Your task to perform on an android device: turn on priority inbox in the gmail app Image 0: 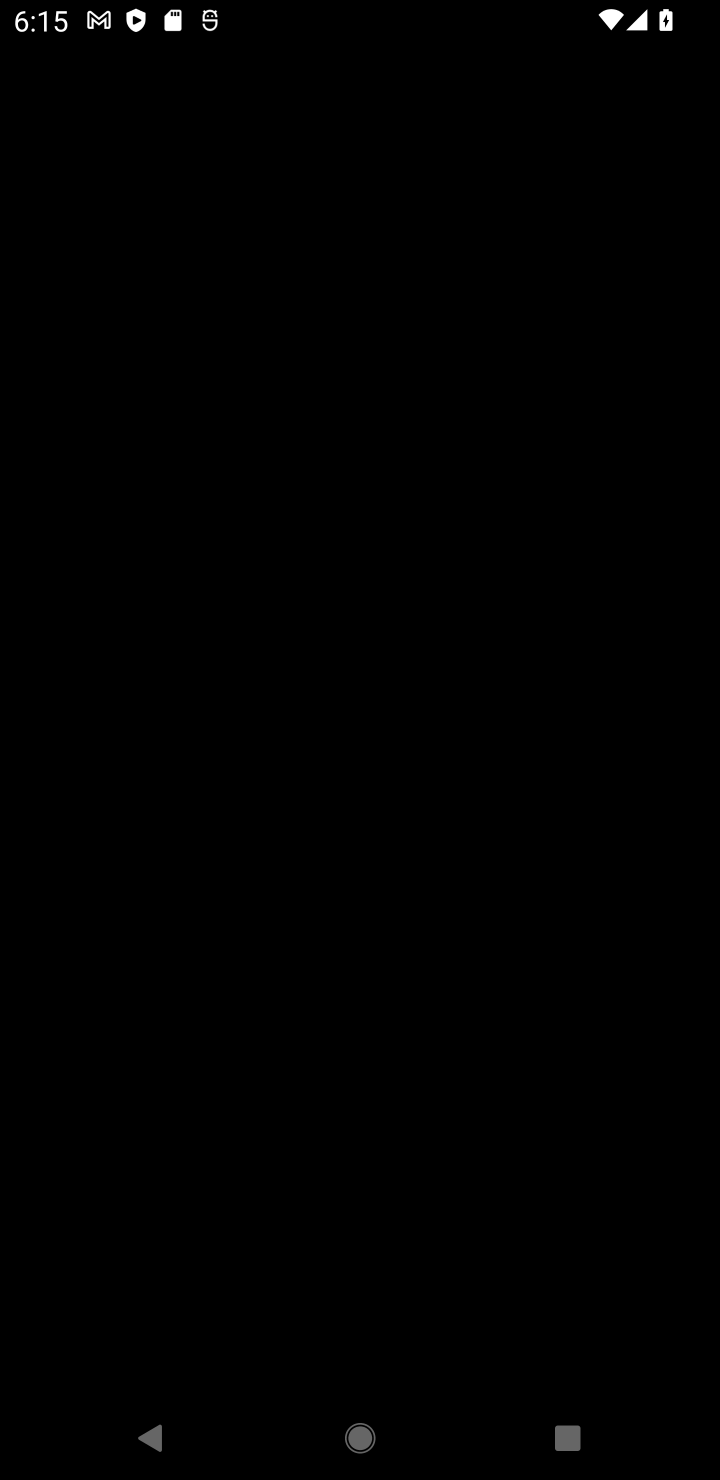
Step 0: press home button
Your task to perform on an android device: turn on priority inbox in the gmail app Image 1: 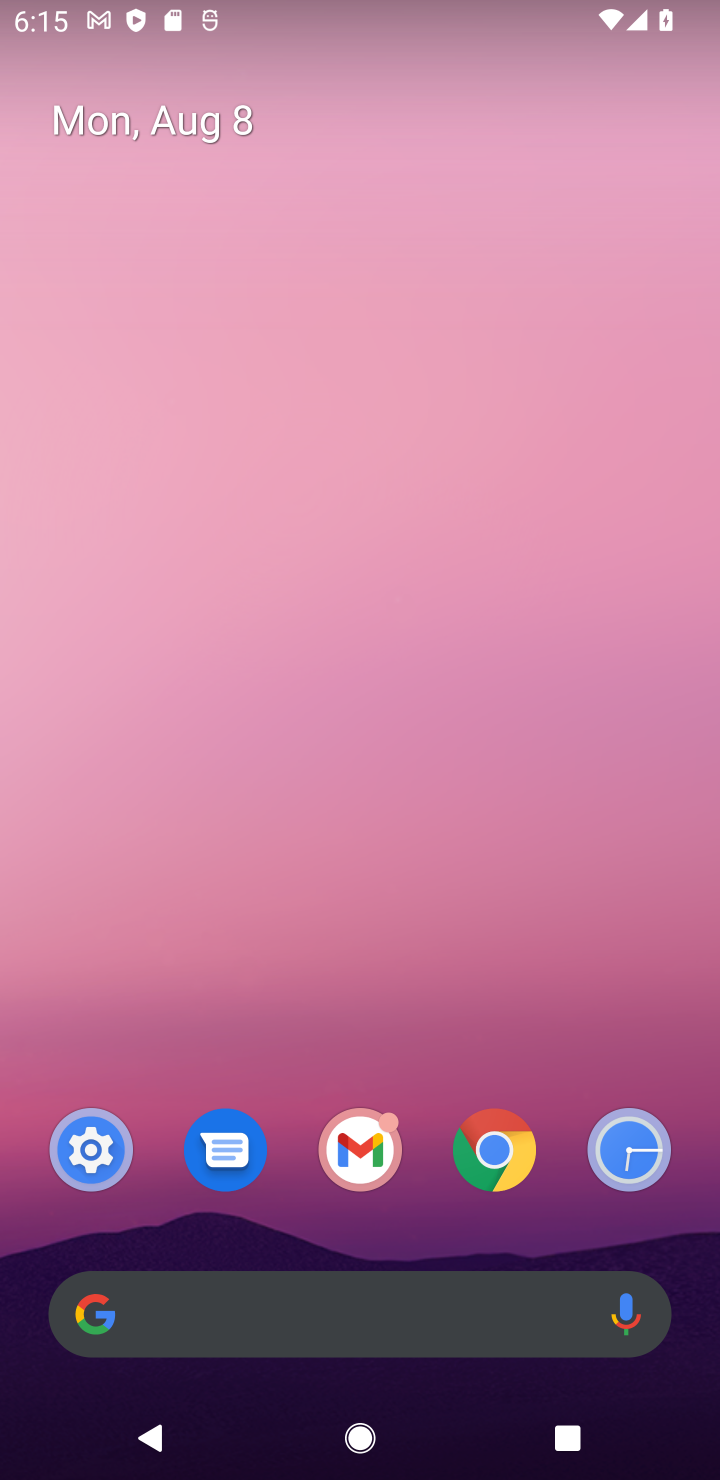
Step 1: click (379, 1183)
Your task to perform on an android device: turn on priority inbox in the gmail app Image 2: 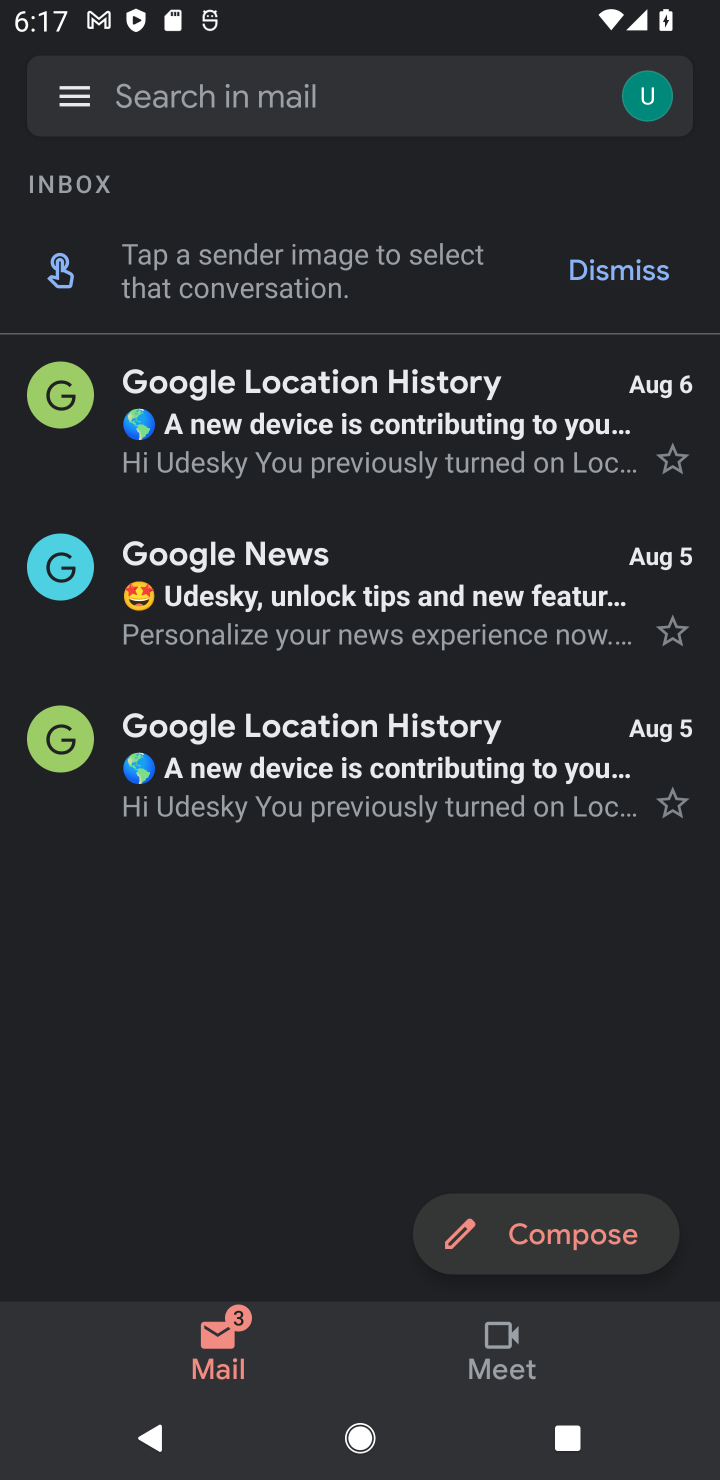
Step 2: task complete